Your task to perform on an android device: What is the news today? Image 0: 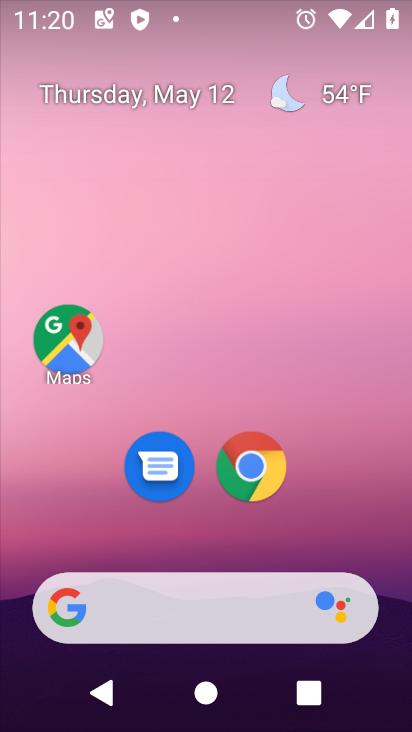
Step 0: drag from (335, 528) to (343, 147)
Your task to perform on an android device: What is the news today? Image 1: 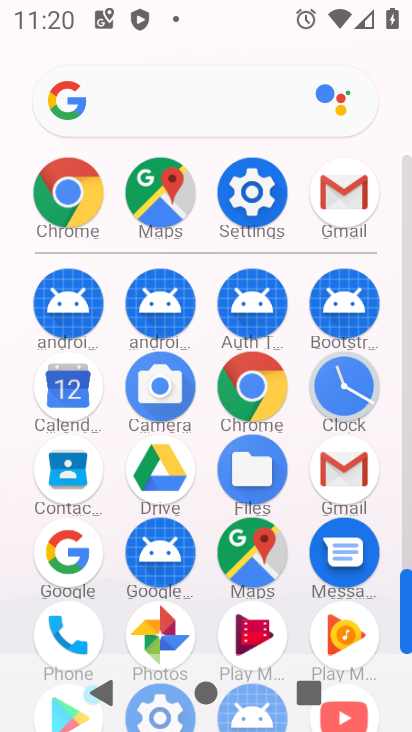
Step 1: click (242, 396)
Your task to perform on an android device: What is the news today? Image 2: 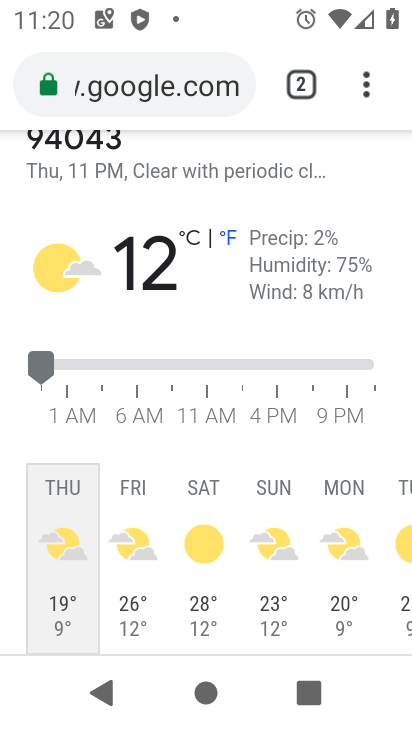
Step 2: click (161, 97)
Your task to perform on an android device: What is the news today? Image 3: 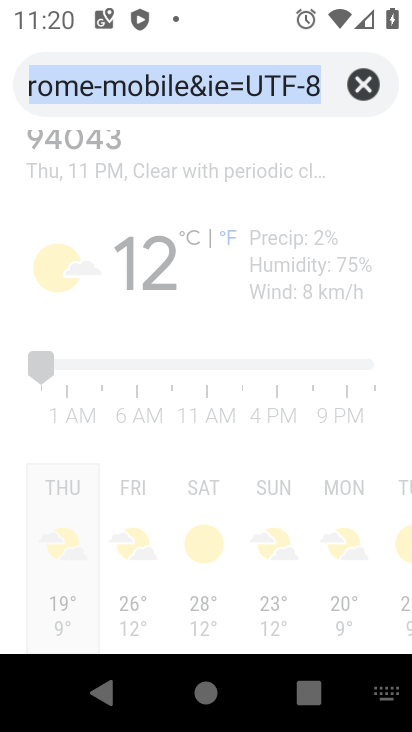
Step 3: click (371, 79)
Your task to perform on an android device: What is the news today? Image 4: 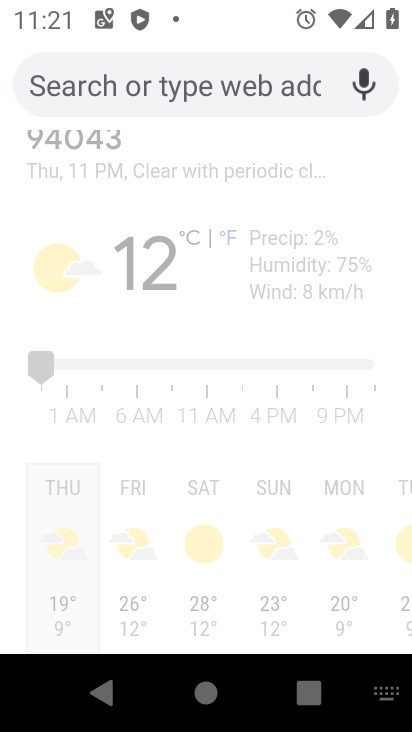
Step 4: type "what is the news today"
Your task to perform on an android device: What is the news today? Image 5: 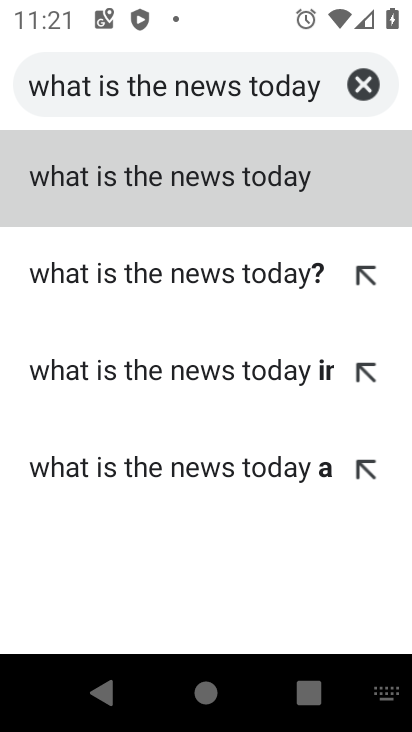
Step 5: click (182, 207)
Your task to perform on an android device: What is the news today? Image 6: 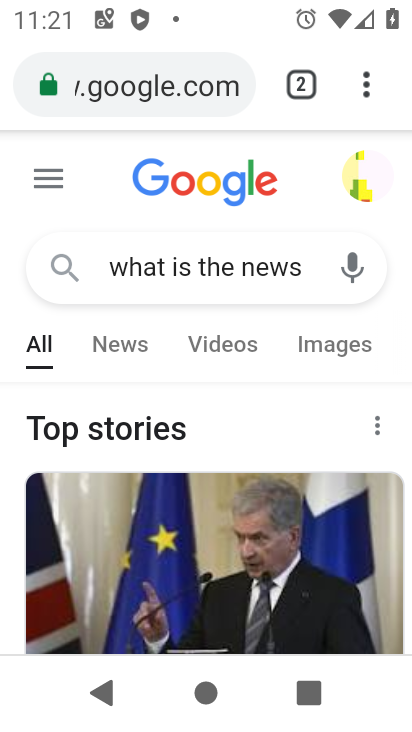
Step 6: task complete